Your task to perform on an android device: check storage Image 0: 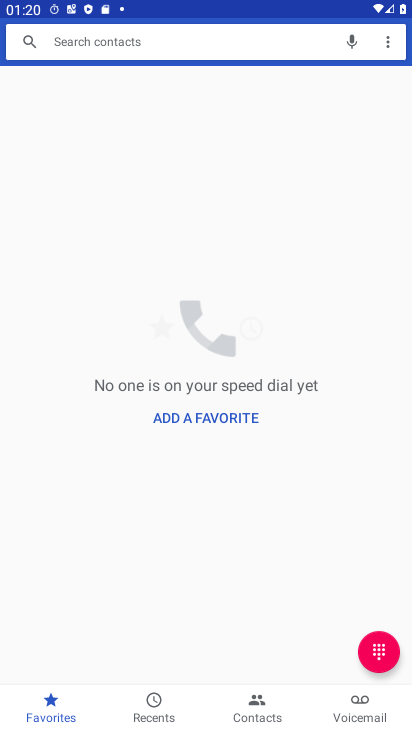
Step 0: press home button
Your task to perform on an android device: check storage Image 1: 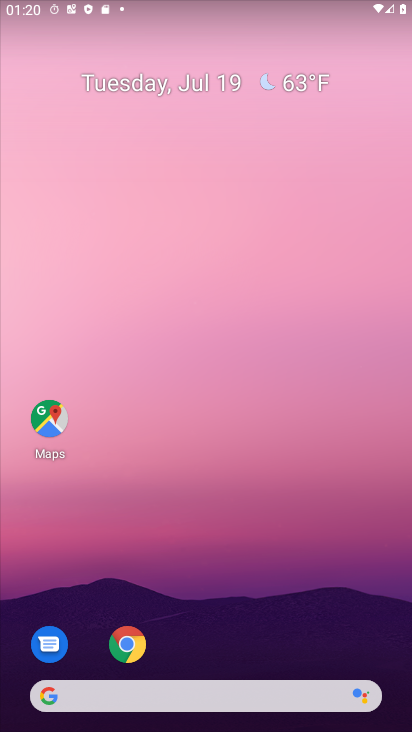
Step 1: drag from (230, 728) to (179, 214)
Your task to perform on an android device: check storage Image 2: 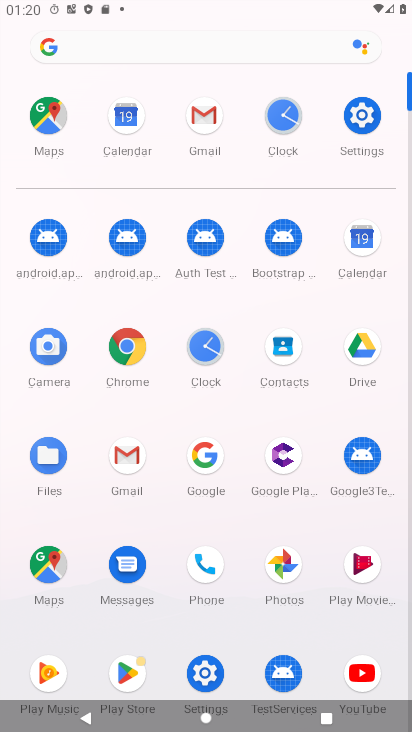
Step 2: click (363, 112)
Your task to perform on an android device: check storage Image 3: 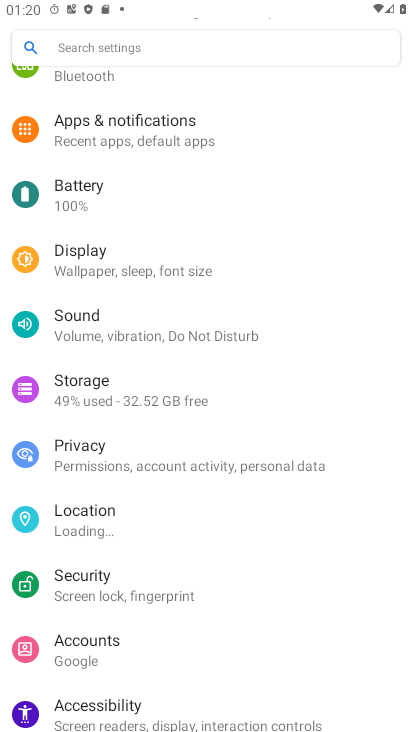
Step 3: click (71, 391)
Your task to perform on an android device: check storage Image 4: 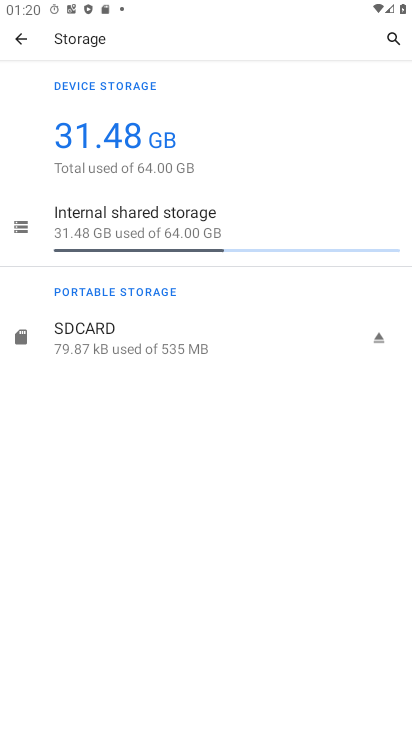
Step 4: task complete